Your task to perform on an android device: change your default location settings in chrome Image 0: 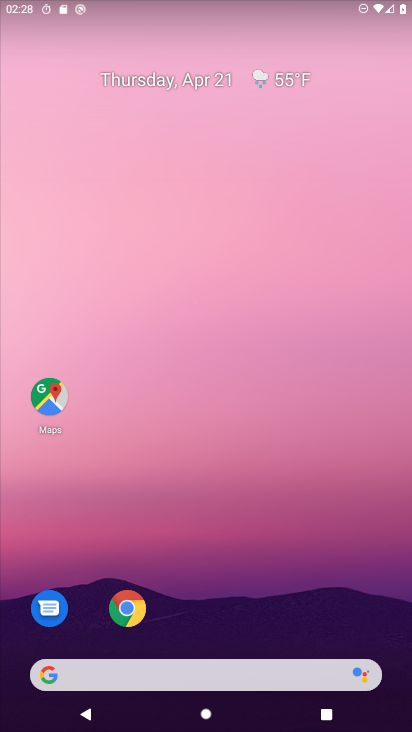
Step 0: click (127, 634)
Your task to perform on an android device: change your default location settings in chrome Image 1: 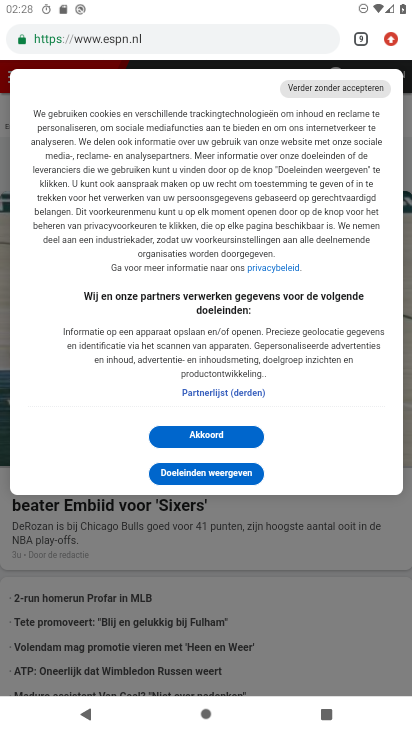
Step 1: drag from (390, 42) to (256, 517)
Your task to perform on an android device: change your default location settings in chrome Image 2: 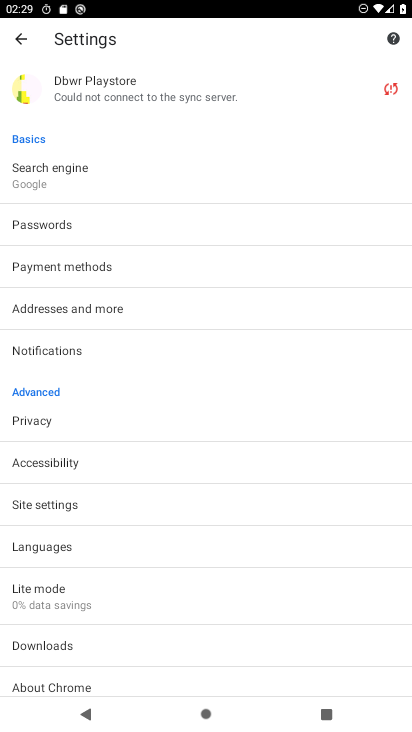
Step 2: click (50, 507)
Your task to perform on an android device: change your default location settings in chrome Image 3: 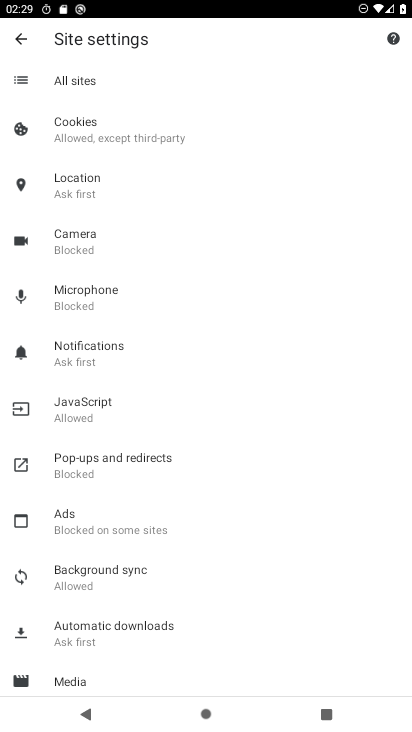
Step 3: click (88, 182)
Your task to perform on an android device: change your default location settings in chrome Image 4: 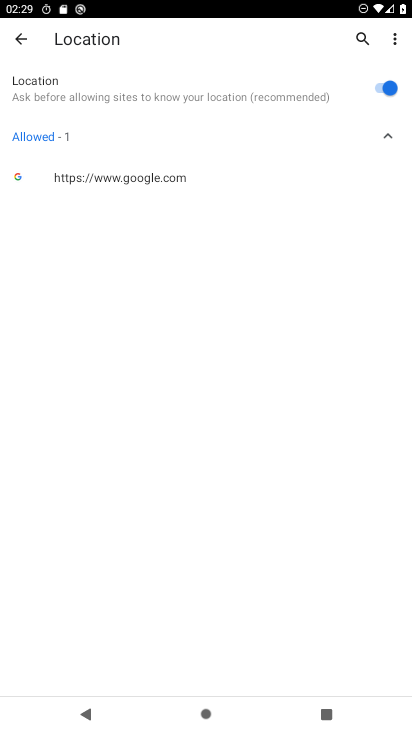
Step 4: click (383, 89)
Your task to perform on an android device: change your default location settings in chrome Image 5: 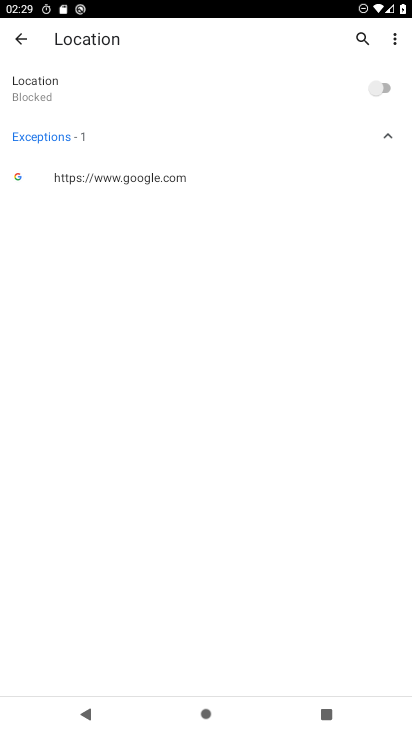
Step 5: task complete